Your task to perform on an android device: Open Youtube and go to the subscriptions tab Image 0: 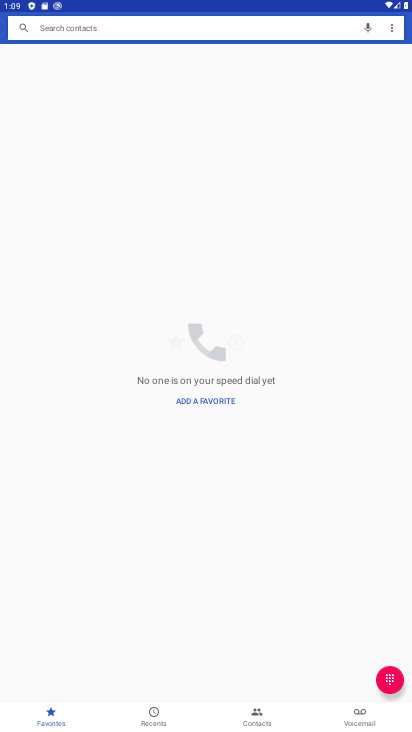
Step 0: press home button
Your task to perform on an android device: Open Youtube and go to the subscriptions tab Image 1: 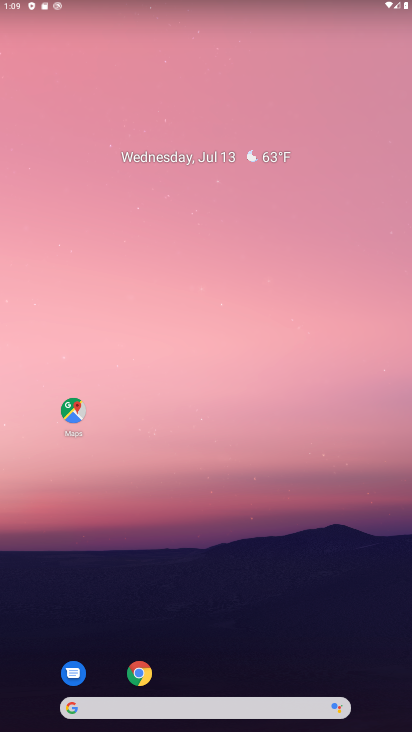
Step 1: drag from (255, 675) to (235, 341)
Your task to perform on an android device: Open Youtube and go to the subscriptions tab Image 2: 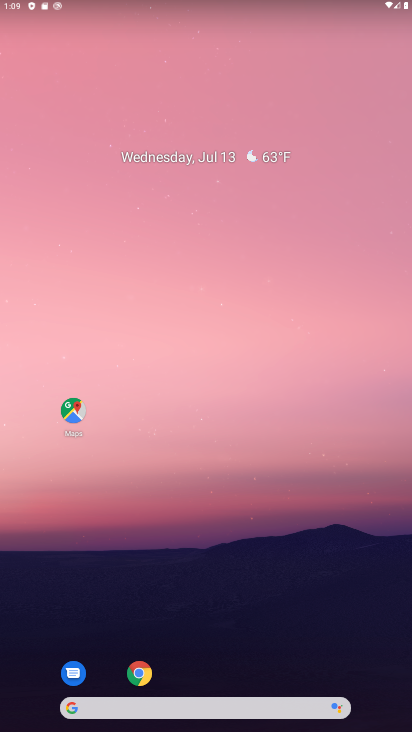
Step 2: drag from (284, 609) to (237, 374)
Your task to perform on an android device: Open Youtube and go to the subscriptions tab Image 3: 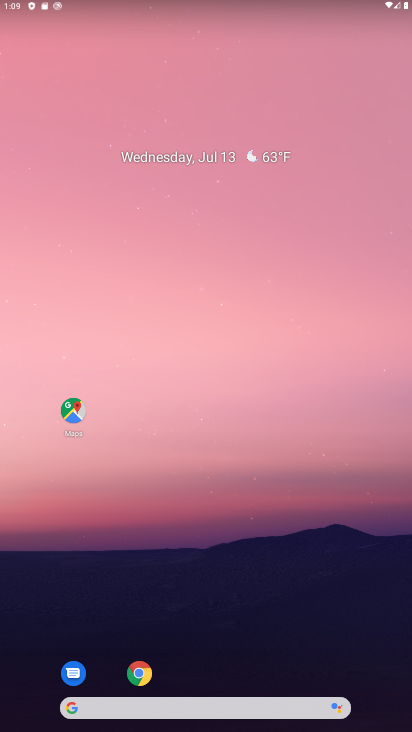
Step 3: drag from (267, 659) to (272, 255)
Your task to perform on an android device: Open Youtube and go to the subscriptions tab Image 4: 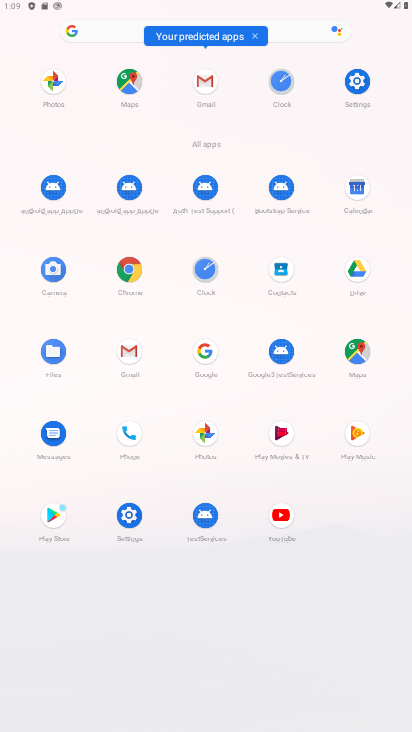
Step 4: click (278, 528)
Your task to perform on an android device: Open Youtube and go to the subscriptions tab Image 5: 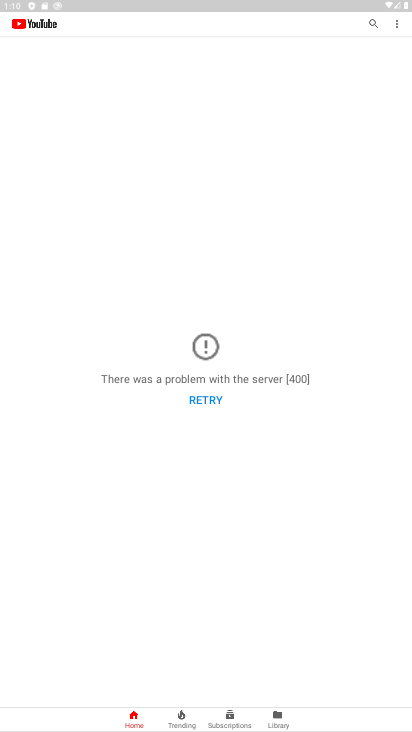
Step 5: click (222, 713)
Your task to perform on an android device: Open Youtube and go to the subscriptions tab Image 6: 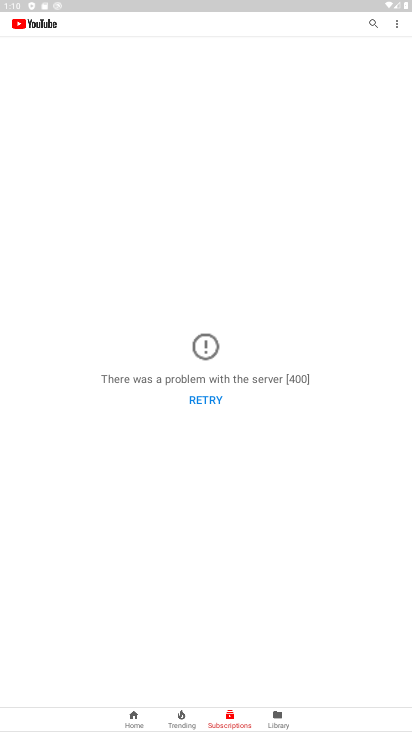
Step 6: task complete